Your task to perform on an android device: What's on my calendar tomorrow? Image 0: 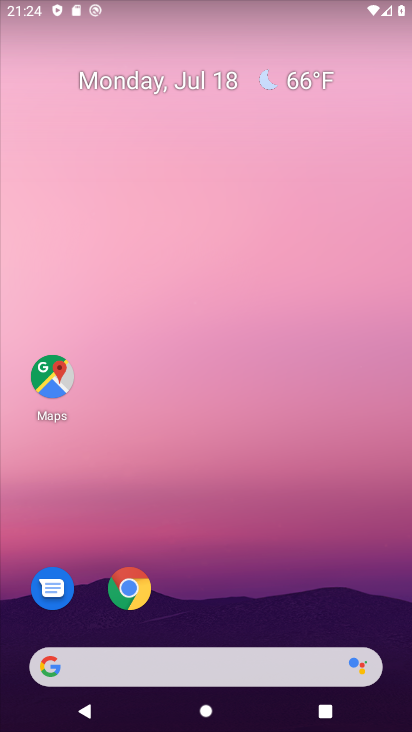
Step 0: drag from (181, 660) to (279, 78)
Your task to perform on an android device: What's on my calendar tomorrow? Image 1: 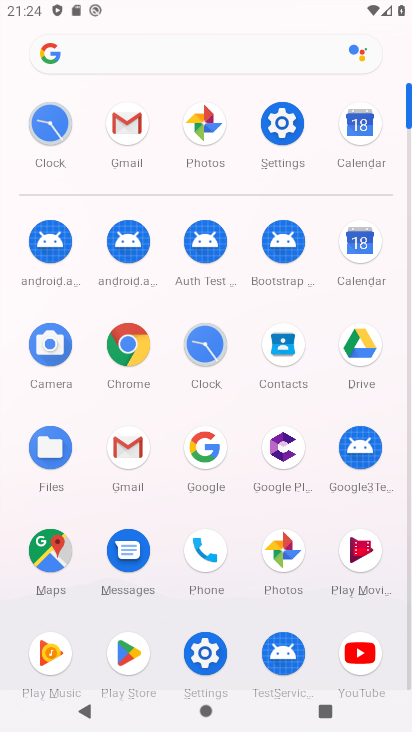
Step 1: click (364, 117)
Your task to perform on an android device: What's on my calendar tomorrow? Image 2: 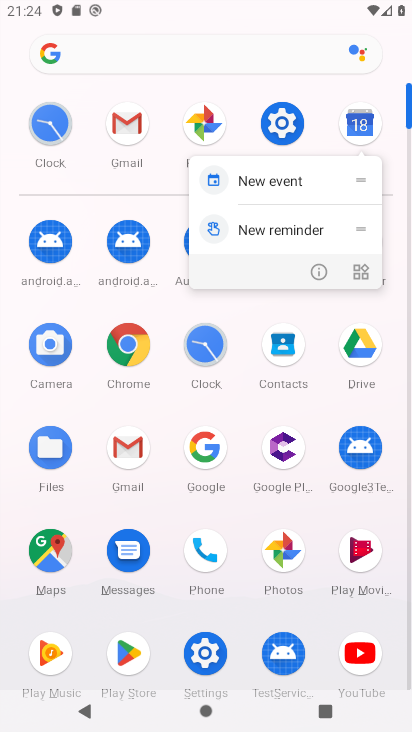
Step 2: click (362, 122)
Your task to perform on an android device: What's on my calendar tomorrow? Image 3: 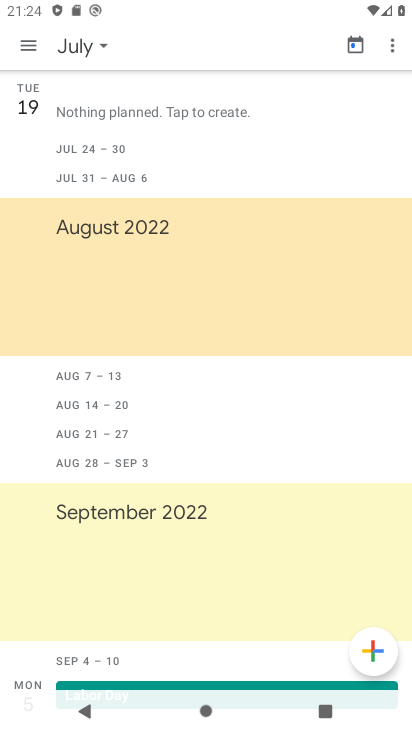
Step 3: task complete